Your task to perform on an android device: Is it going to rain today? Image 0: 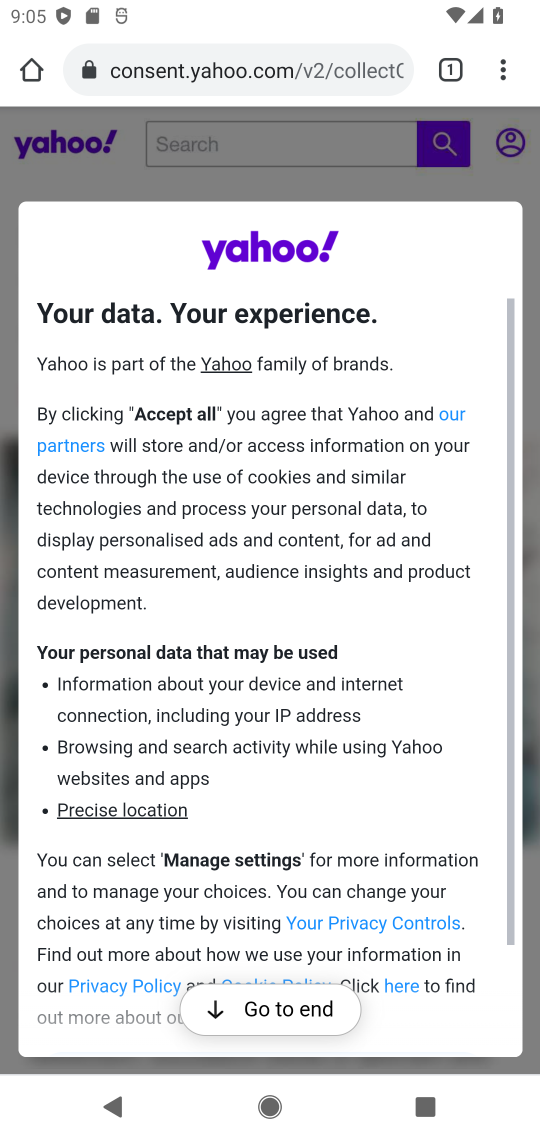
Step 0: press home button
Your task to perform on an android device: Is it going to rain today? Image 1: 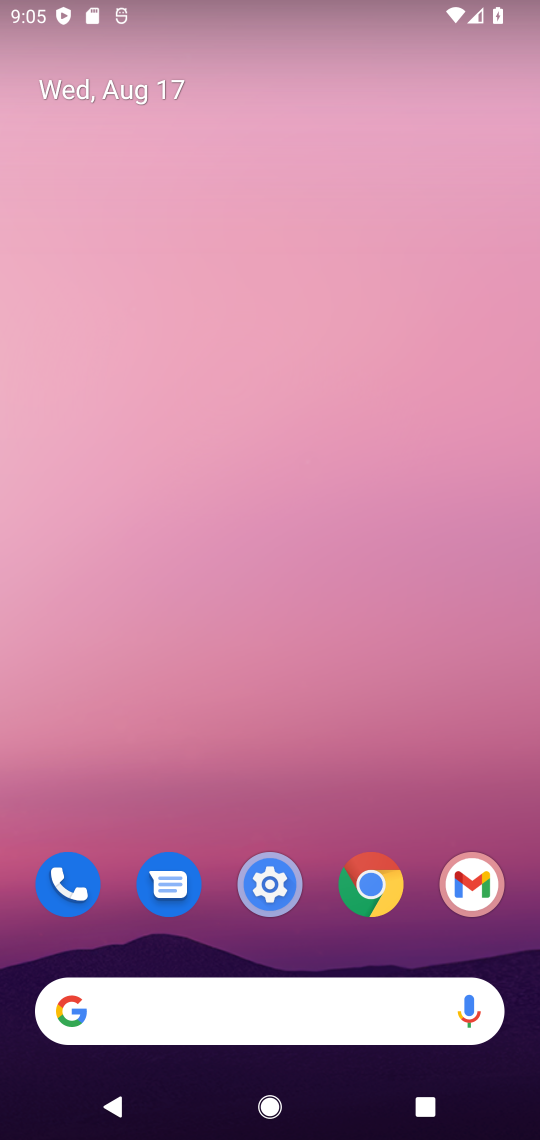
Step 1: click (280, 827)
Your task to perform on an android device: Is it going to rain today? Image 2: 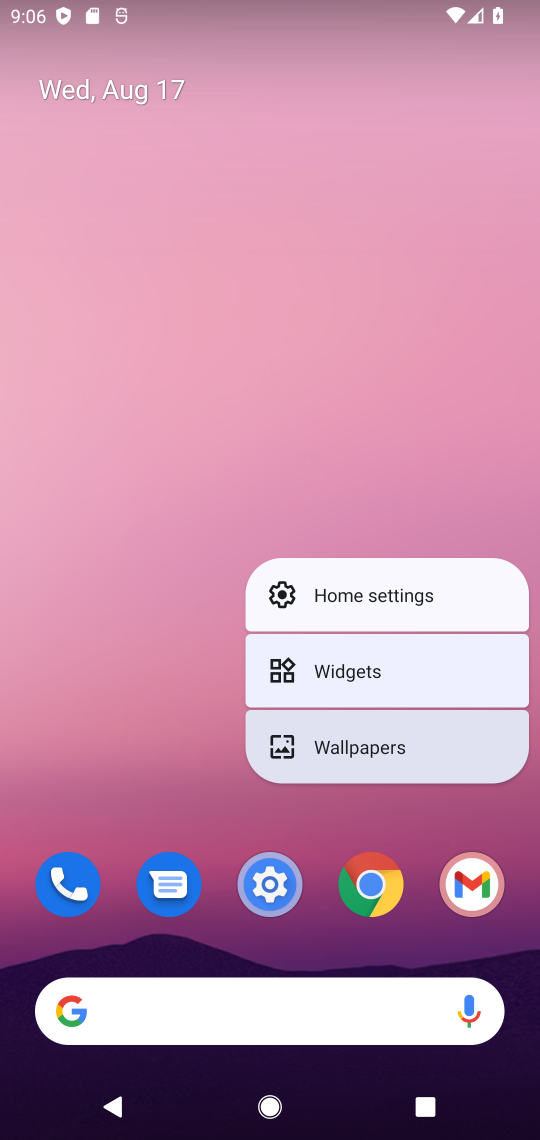
Step 2: click (230, 811)
Your task to perform on an android device: Is it going to rain today? Image 3: 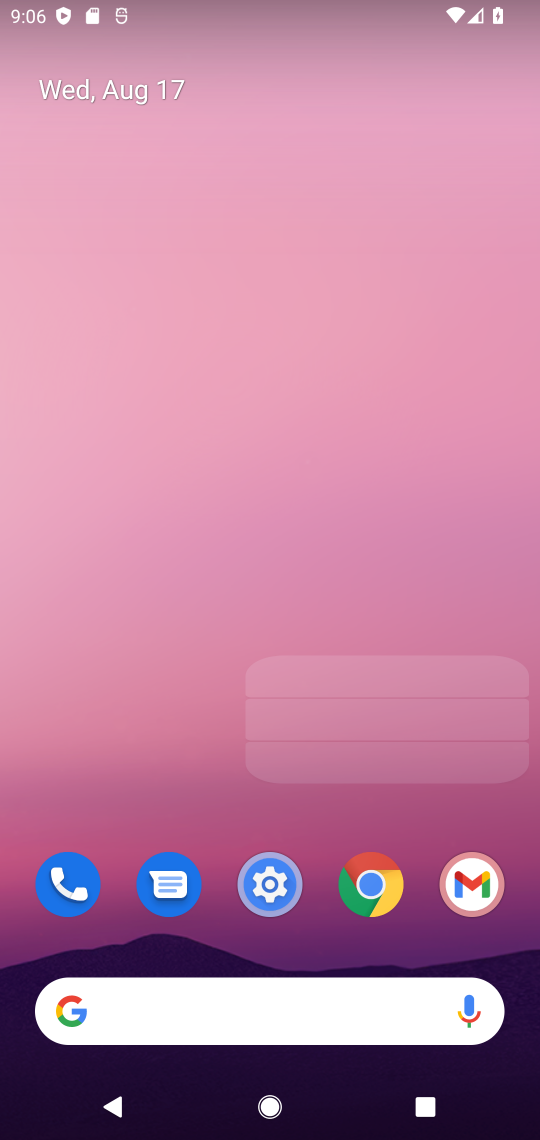
Step 3: drag from (215, 779) to (196, 247)
Your task to perform on an android device: Is it going to rain today? Image 4: 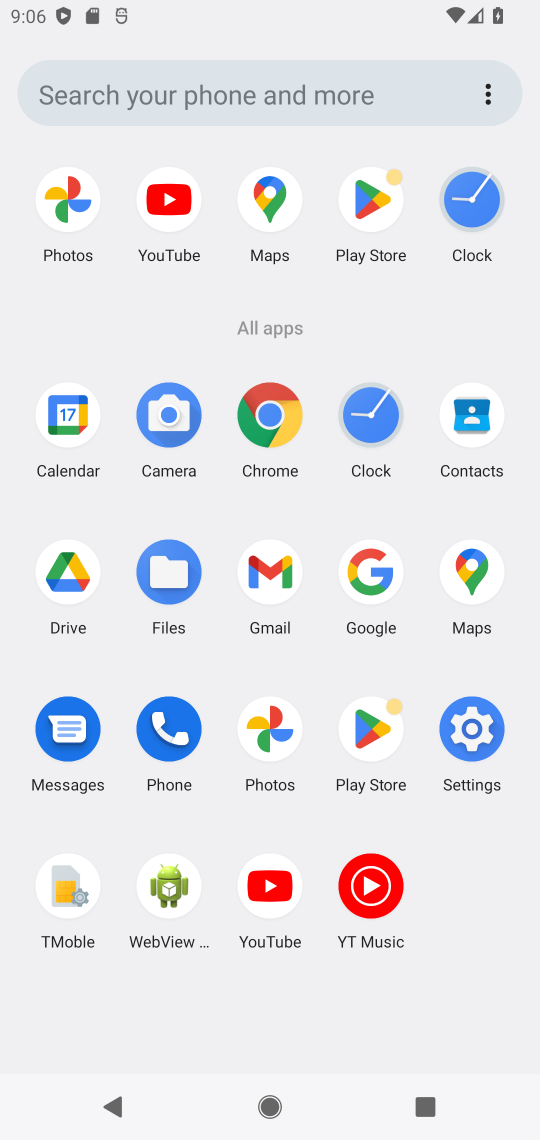
Step 4: click (371, 591)
Your task to perform on an android device: Is it going to rain today? Image 5: 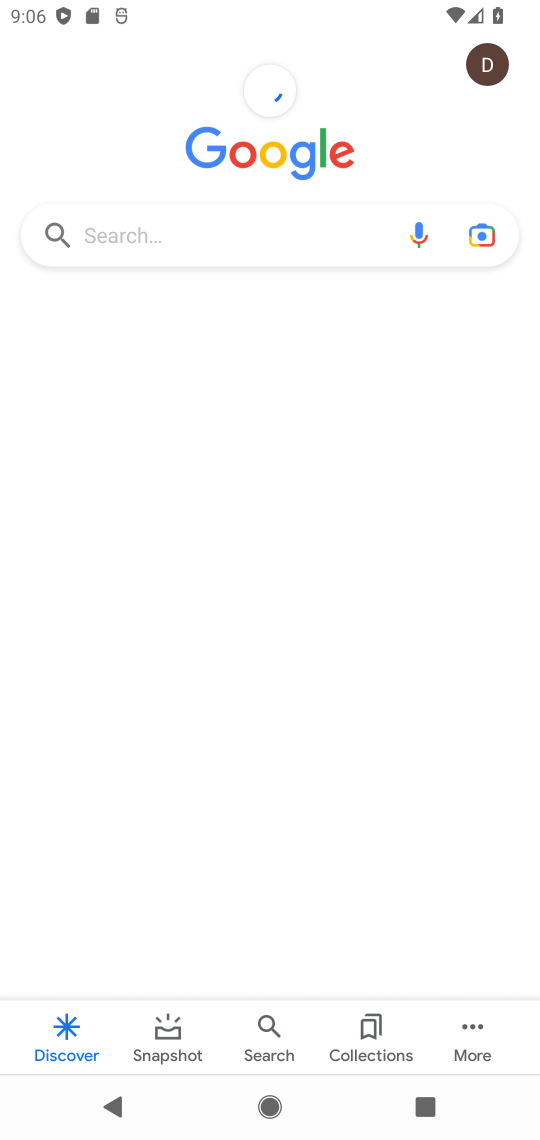
Step 5: click (139, 234)
Your task to perform on an android device: Is it going to rain today? Image 6: 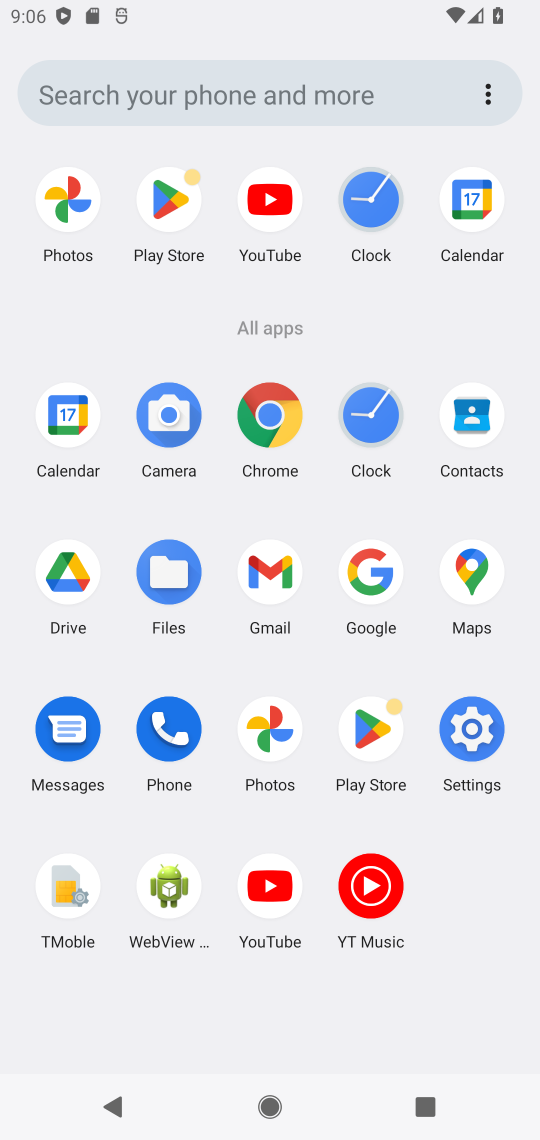
Step 6: click (368, 603)
Your task to perform on an android device: Is it going to rain today? Image 7: 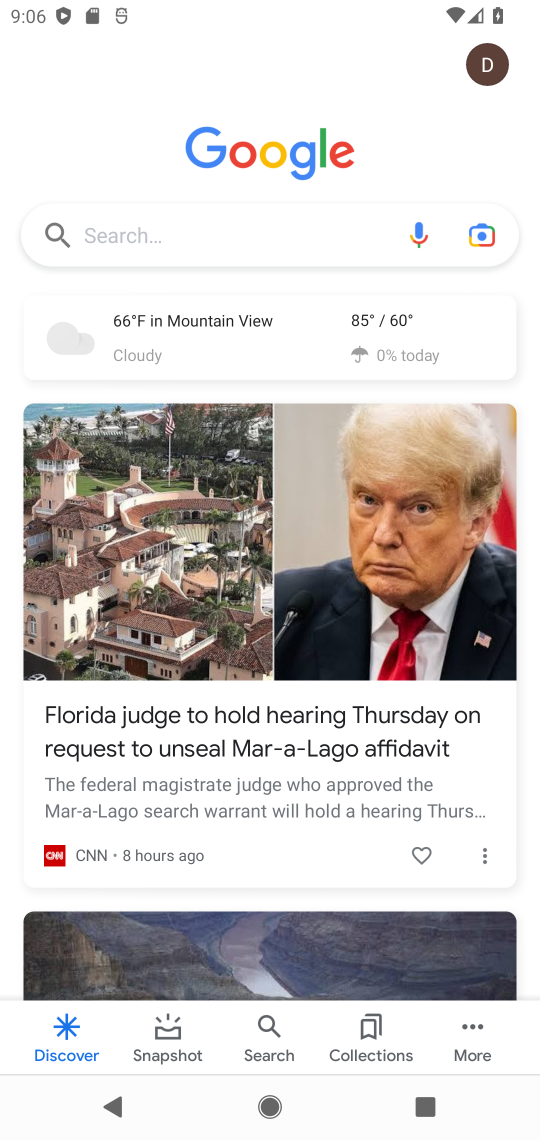
Step 7: click (222, 318)
Your task to perform on an android device: Is it going to rain today? Image 8: 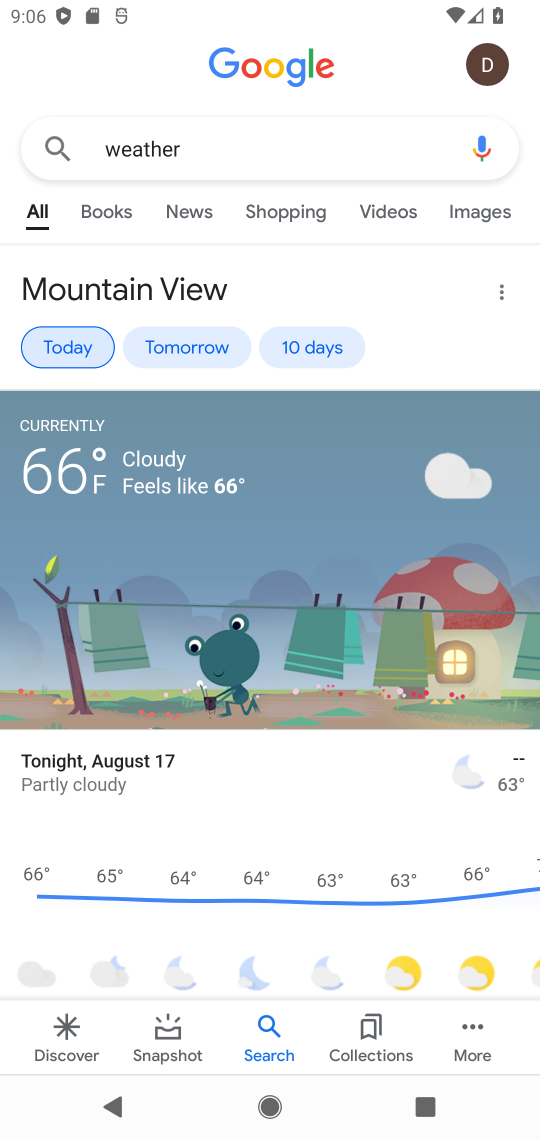
Step 8: task complete